Your task to perform on an android device: Go to display settings Image 0: 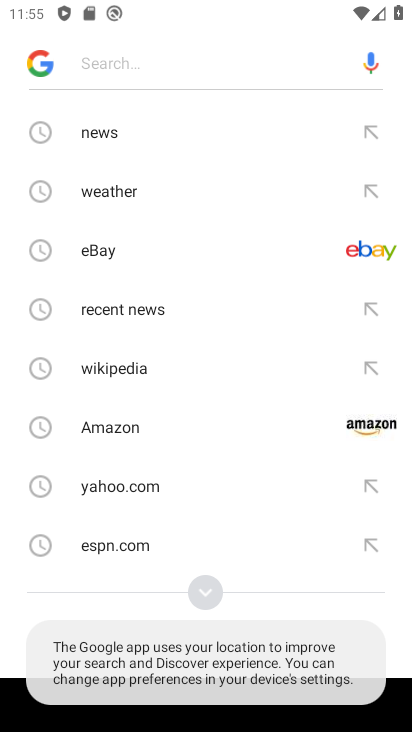
Step 0: press home button
Your task to perform on an android device: Go to display settings Image 1: 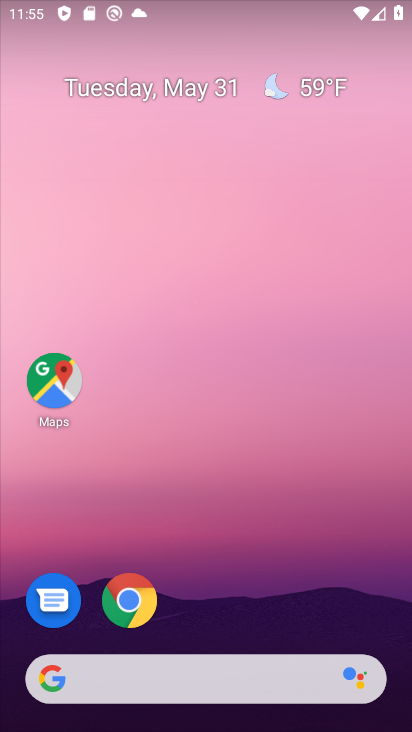
Step 1: drag from (187, 632) to (199, 175)
Your task to perform on an android device: Go to display settings Image 2: 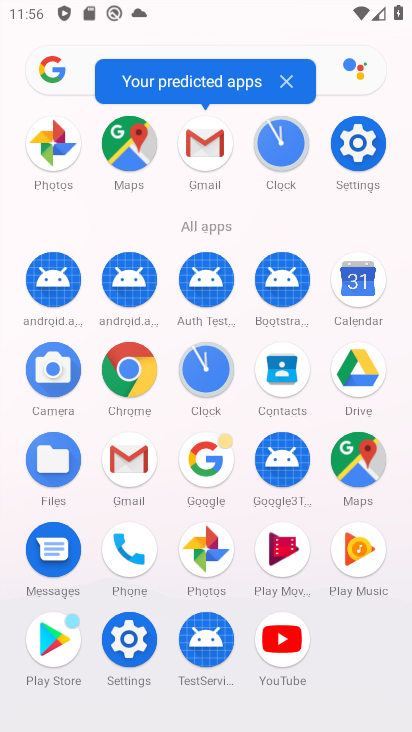
Step 2: click (365, 151)
Your task to perform on an android device: Go to display settings Image 3: 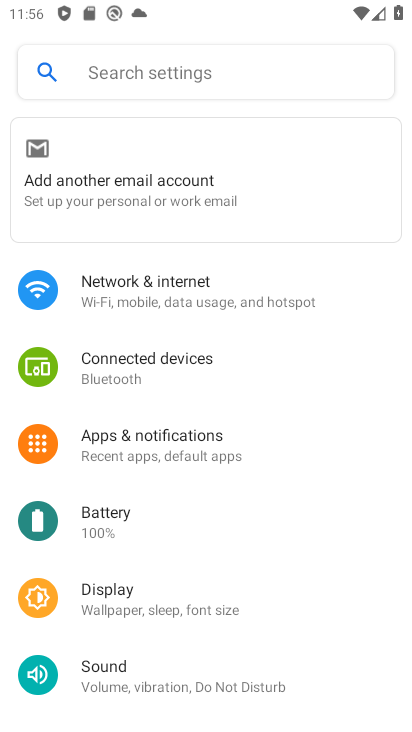
Step 3: click (117, 597)
Your task to perform on an android device: Go to display settings Image 4: 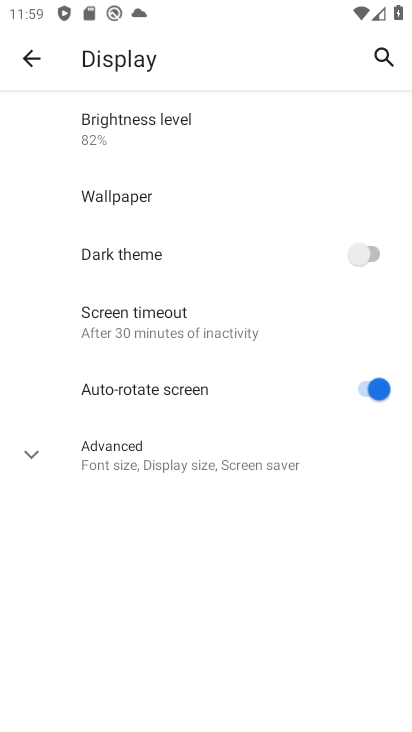
Step 4: task complete